Your task to perform on an android device: turn on bluetooth scan Image 0: 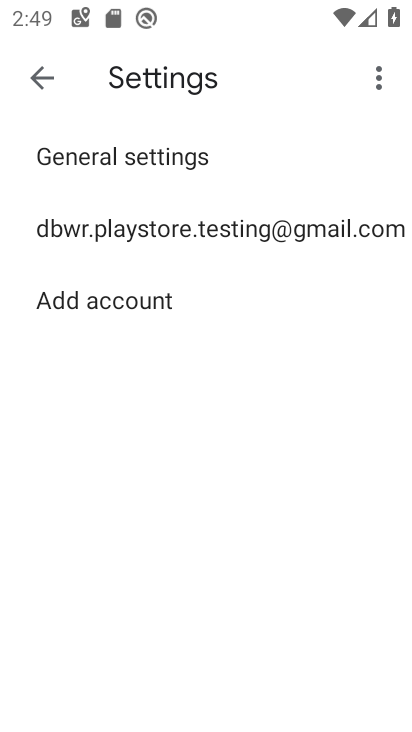
Step 0: press home button
Your task to perform on an android device: turn on bluetooth scan Image 1: 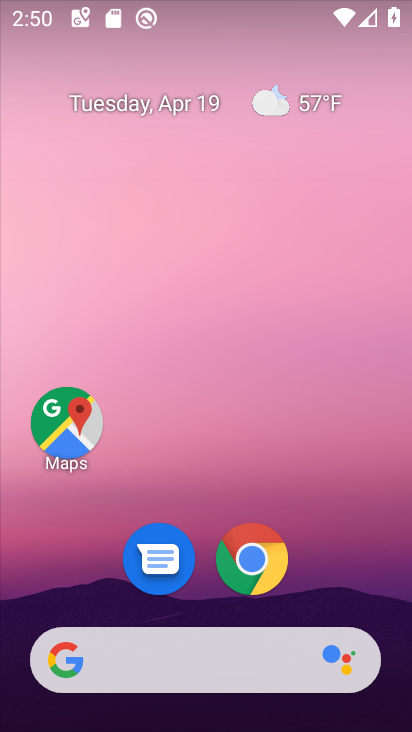
Step 1: drag from (212, 601) to (209, 26)
Your task to perform on an android device: turn on bluetooth scan Image 2: 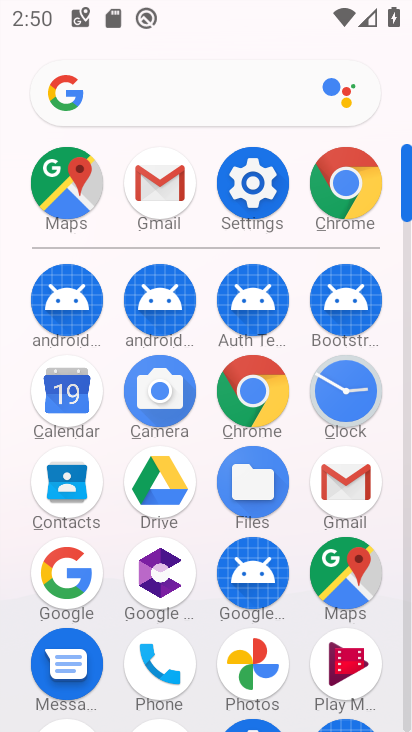
Step 2: click (256, 175)
Your task to perform on an android device: turn on bluetooth scan Image 3: 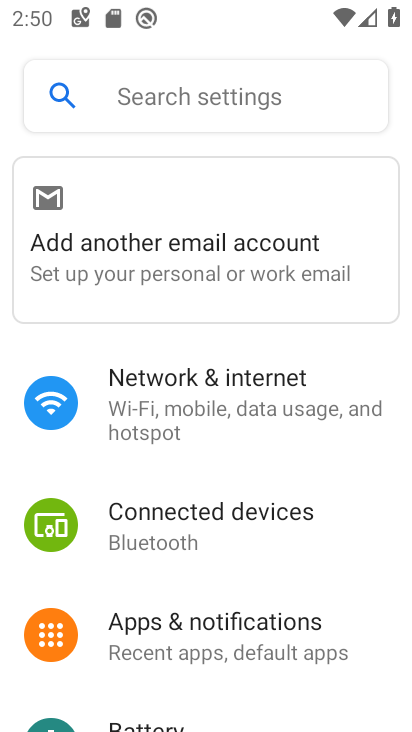
Step 3: drag from (217, 640) to (198, 131)
Your task to perform on an android device: turn on bluetooth scan Image 4: 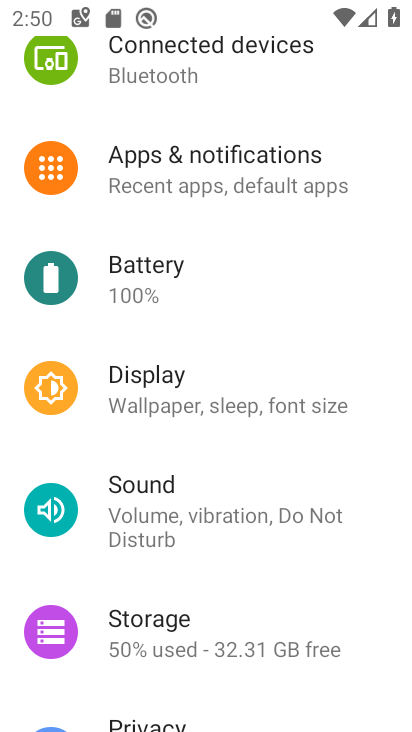
Step 4: drag from (196, 661) to (203, 108)
Your task to perform on an android device: turn on bluetooth scan Image 5: 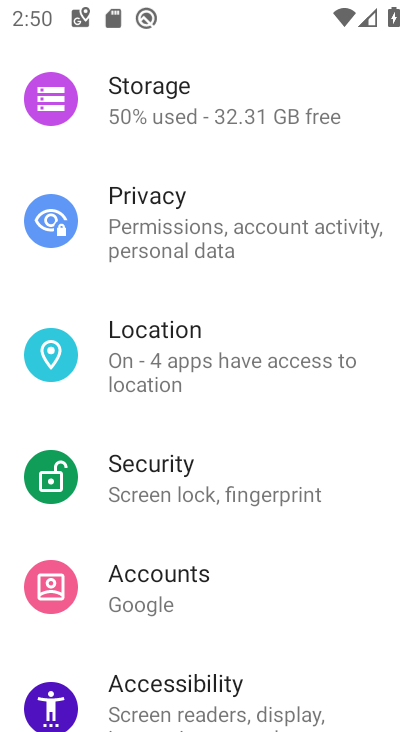
Step 5: click (174, 346)
Your task to perform on an android device: turn on bluetooth scan Image 6: 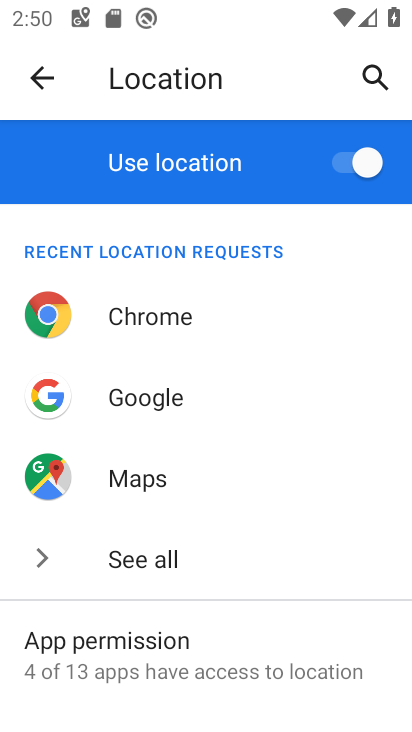
Step 6: click (183, 642)
Your task to perform on an android device: turn on bluetooth scan Image 7: 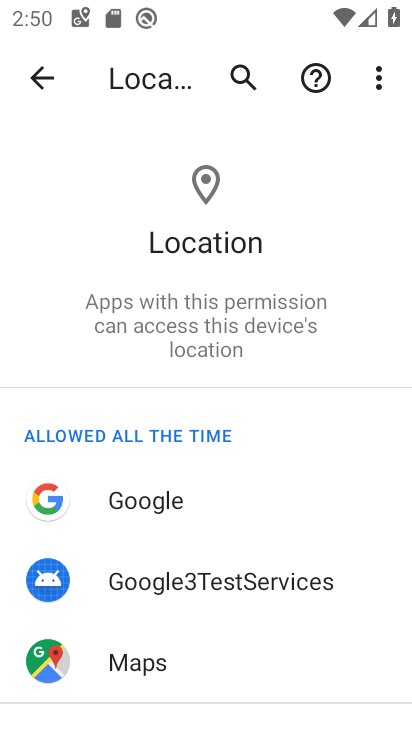
Step 7: click (50, 85)
Your task to perform on an android device: turn on bluetooth scan Image 8: 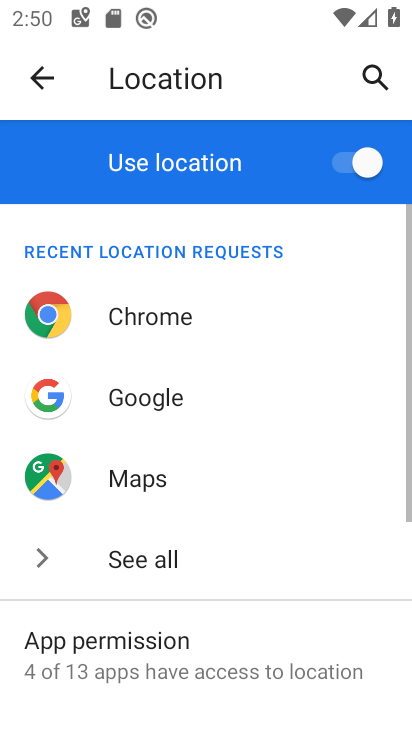
Step 8: drag from (253, 593) to (249, 104)
Your task to perform on an android device: turn on bluetooth scan Image 9: 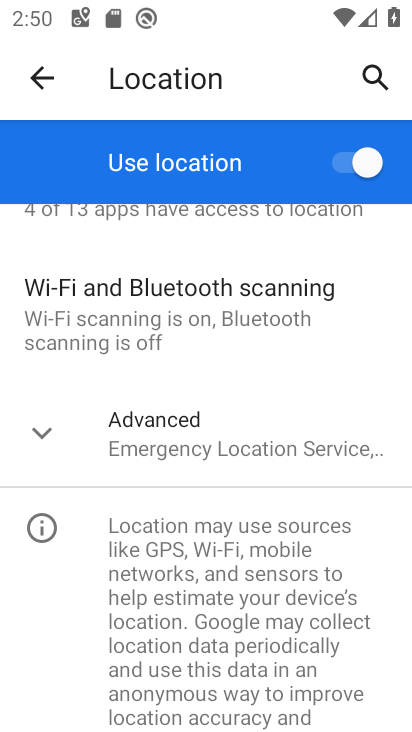
Step 9: click (209, 290)
Your task to perform on an android device: turn on bluetooth scan Image 10: 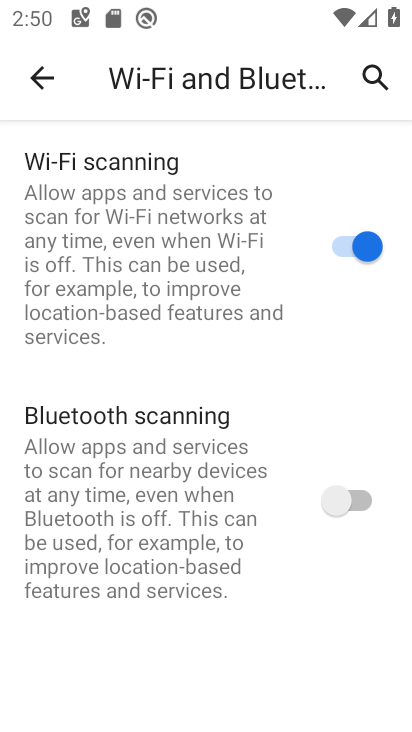
Step 10: click (350, 496)
Your task to perform on an android device: turn on bluetooth scan Image 11: 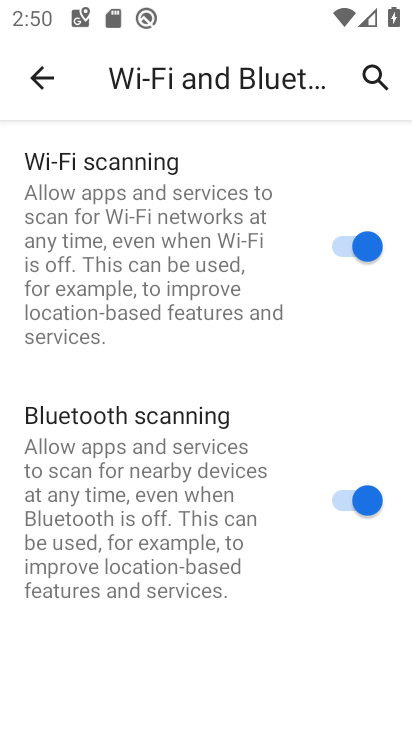
Step 11: task complete